Your task to perform on an android device: turn off smart reply in the gmail app Image 0: 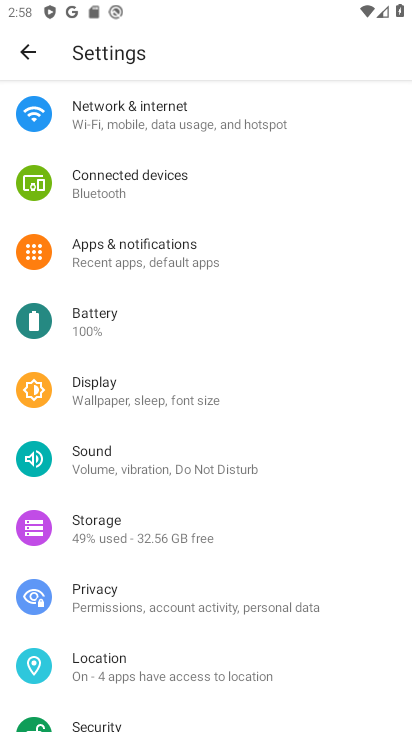
Step 0: press home button
Your task to perform on an android device: turn off smart reply in the gmail app Image 1: 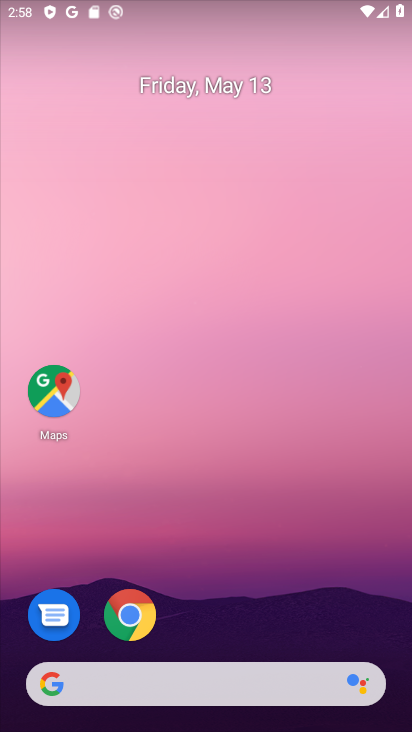
Step 1: drag from (168, 678) to (286, 187)
Your task to perform on an android device: turn off smart reply in the gmail app Image 2: 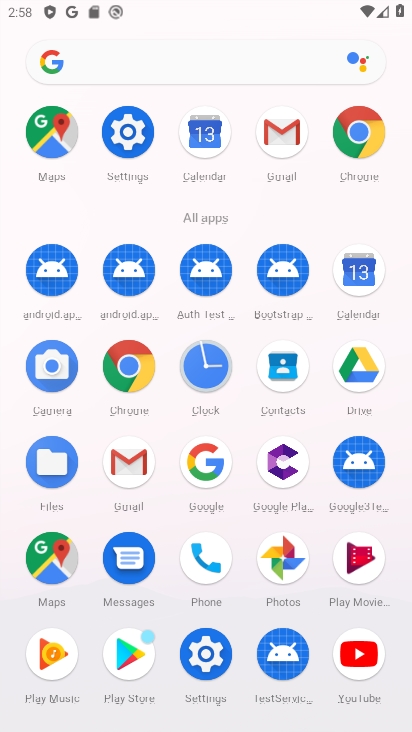
Step 2: click (285, 145)
Your task to perform on an android device: turn off smart reply in the gmail app Image 3: 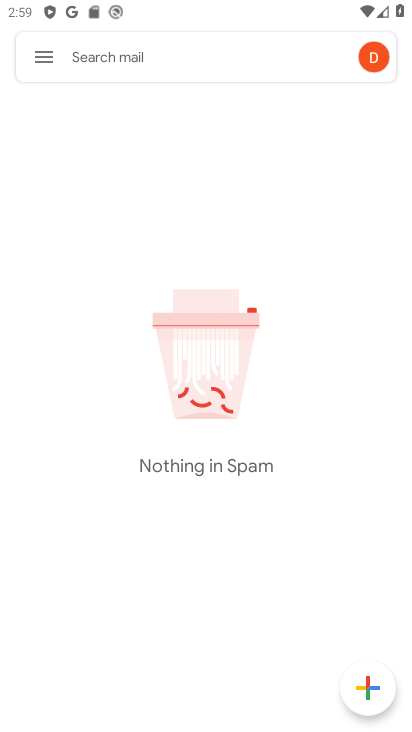
Step 3: click (49, 62)
Your task to perform on an android device: turn off smart reply in the gmail app Image 4: 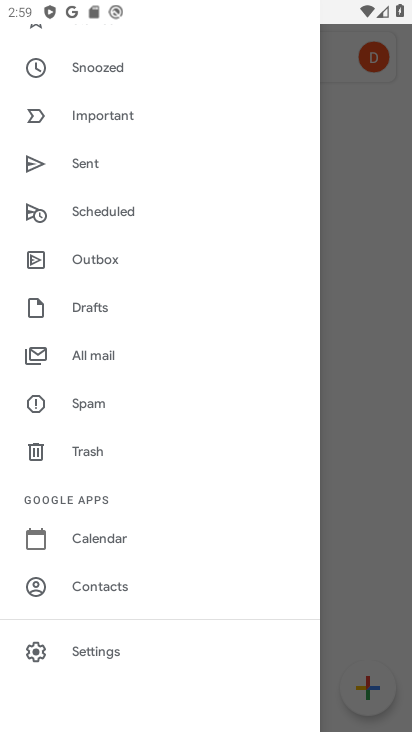
Step 4: click (101, 651)
Your task to perform on an android device: turn off smart reply in the gmail app Image 5: 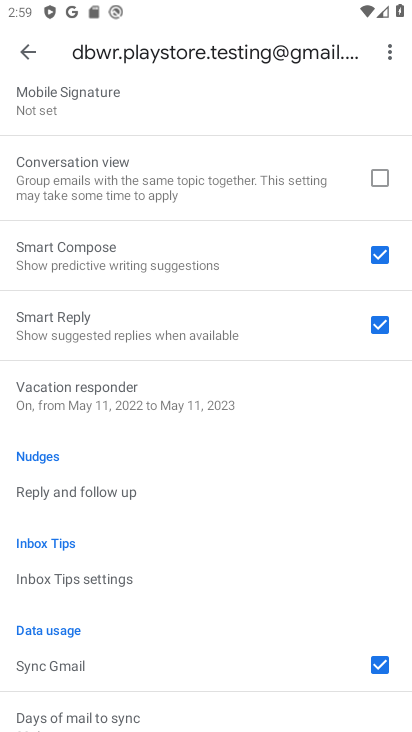
Step 5: click (381, 327)
Your task to perform on an android device: turn off smart reply in the gmail app Image 6: 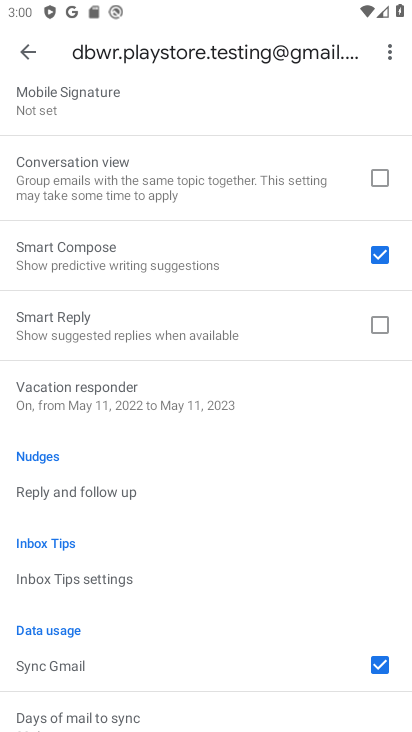
Step 6: task complete